Your task to perform on an android device: Open battery settings Image 0: 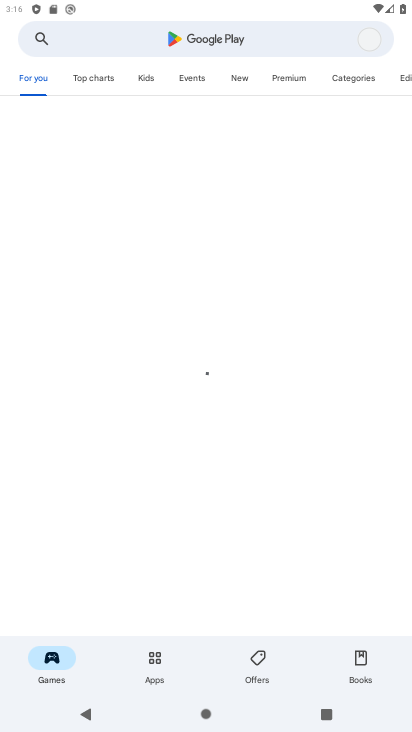
Step 0: press home button
Your task to perform on an android device: Open battery settings Image 1: 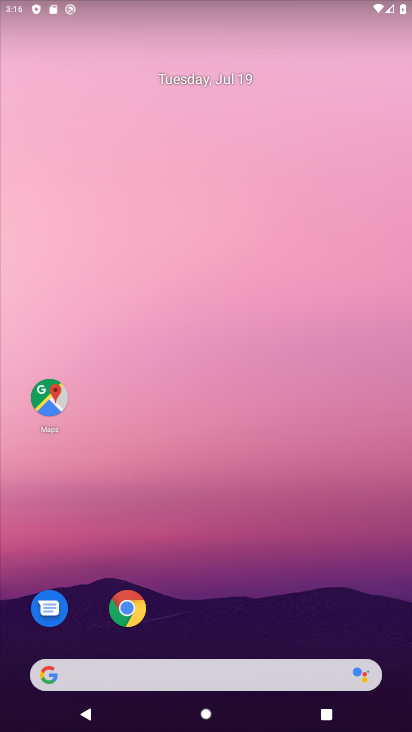
Step 1: drag from (28, 629) to (264, 79)
Your task to perform on an android device: Open battery settings Image 2: 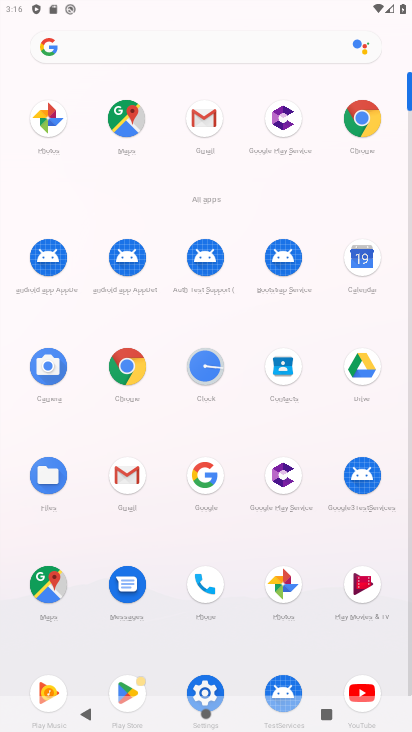
Step 2: click (201, 684)
Your task to perform on an android device: Open battery settings Image 3: 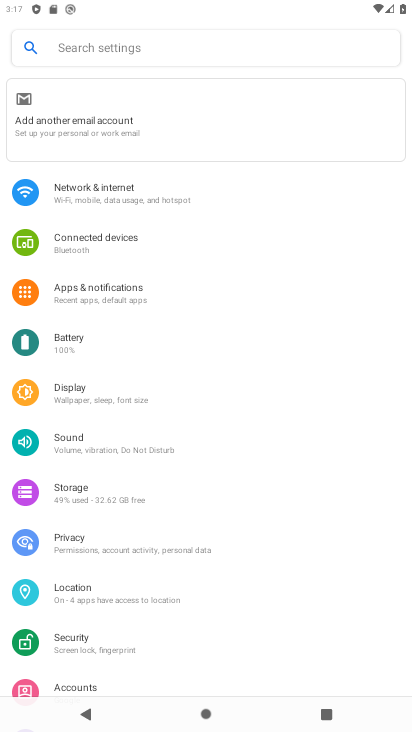
Step 3: click (74, 343)
Your task to perform on an android device: Open battery settings Image 4: 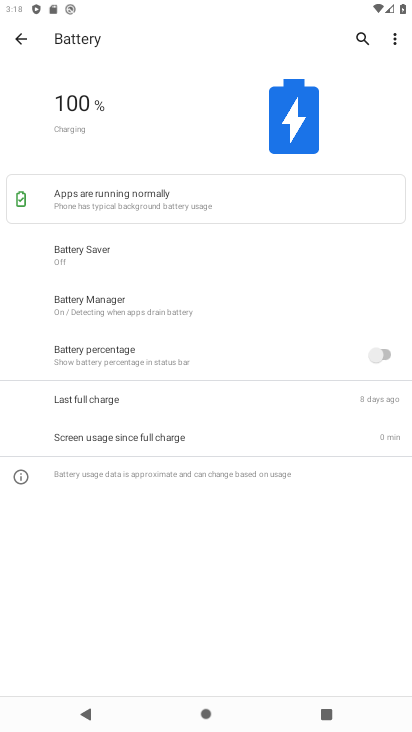
Step 4: task complete